Your task to perform on an android device: What's the news in Jamaica? Image 0: 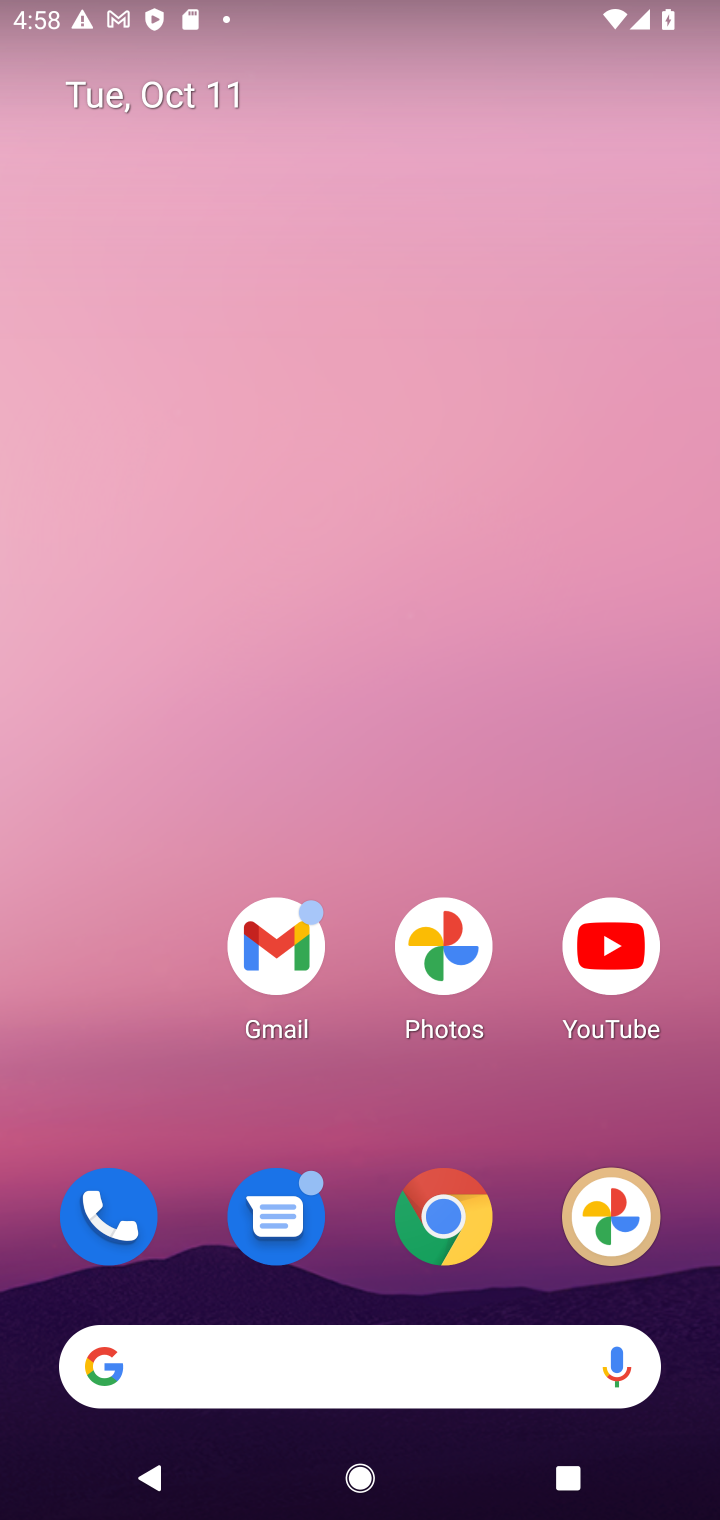
Step 0: click (447, 1225)
Your task to perform on an android device: What's the news in Jamaica? Image 1: 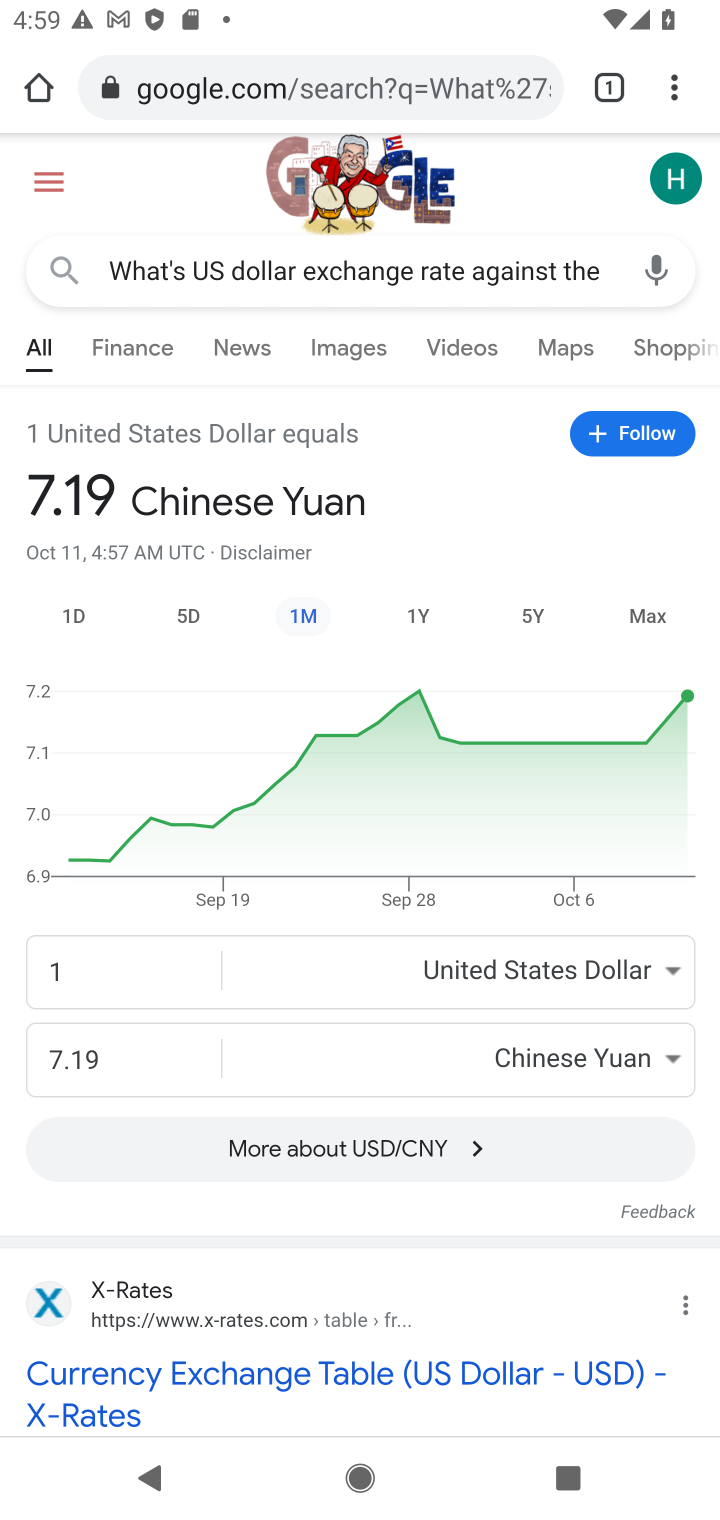
Step 1: click (383, 85)
Your task to perform on an android device: What's the news in Jamaica? Image 2: 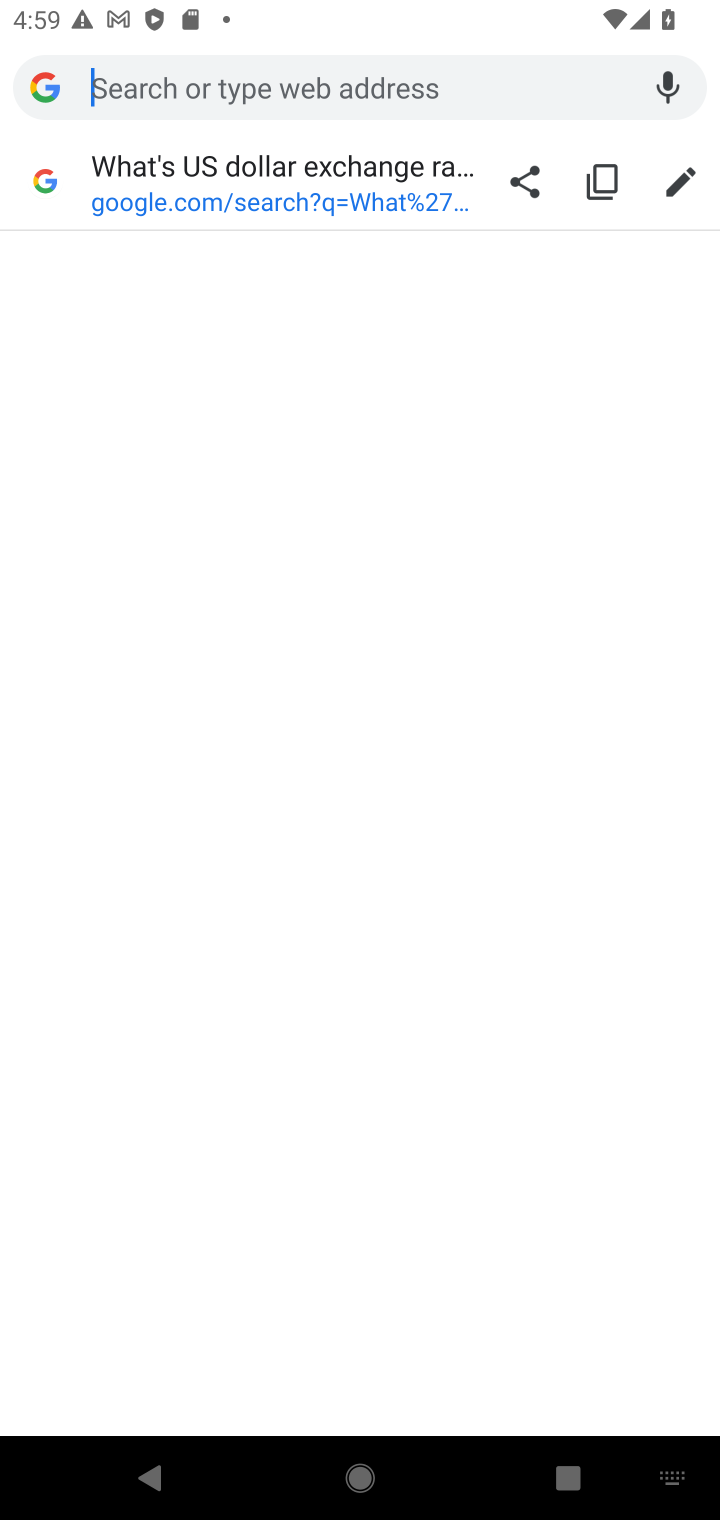
Step 2: type "What's the news in Jamaica?"
Your task to perform on an android device: What's the news in Jamaica? Image 3: 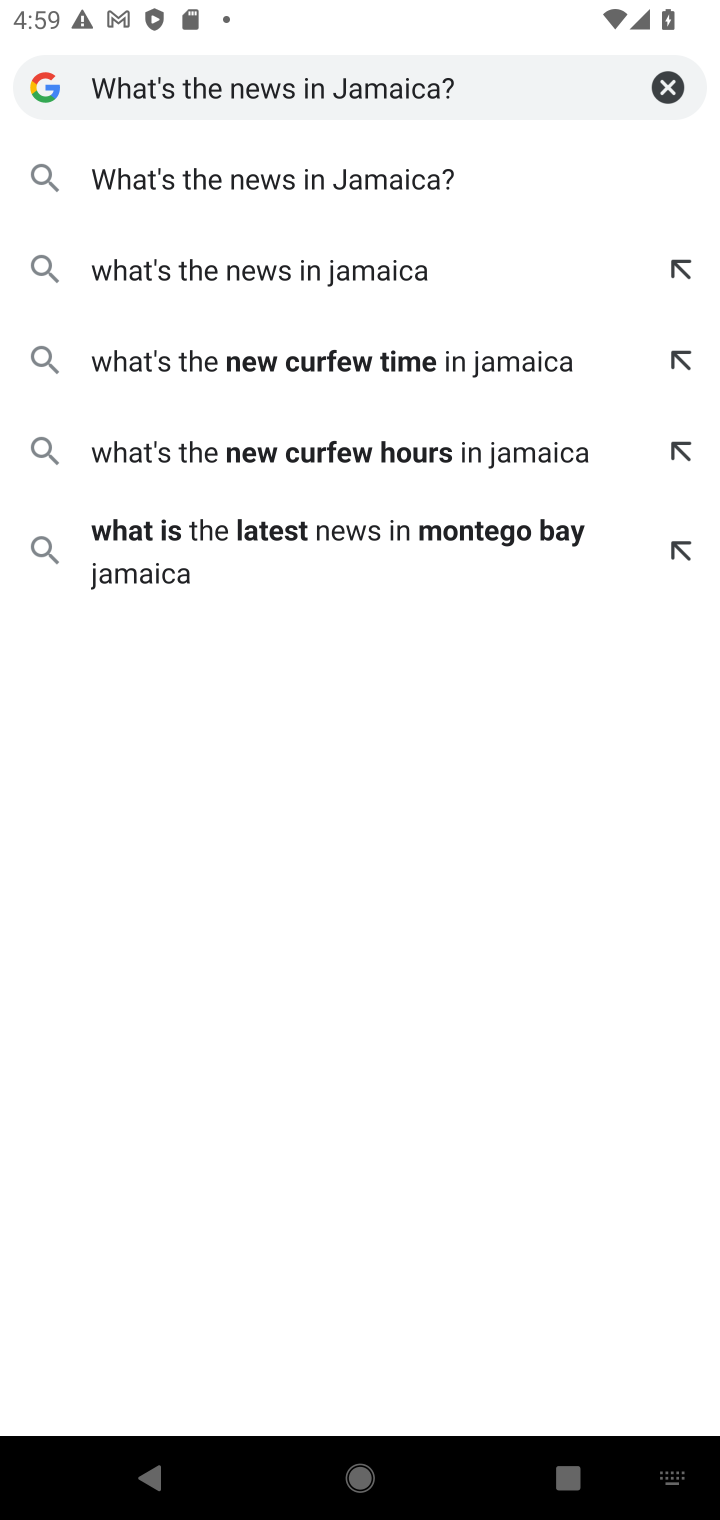
Step 3: click (304, 172)
Your task to perform on an android device: What's the news in Jamaica? Image 4: 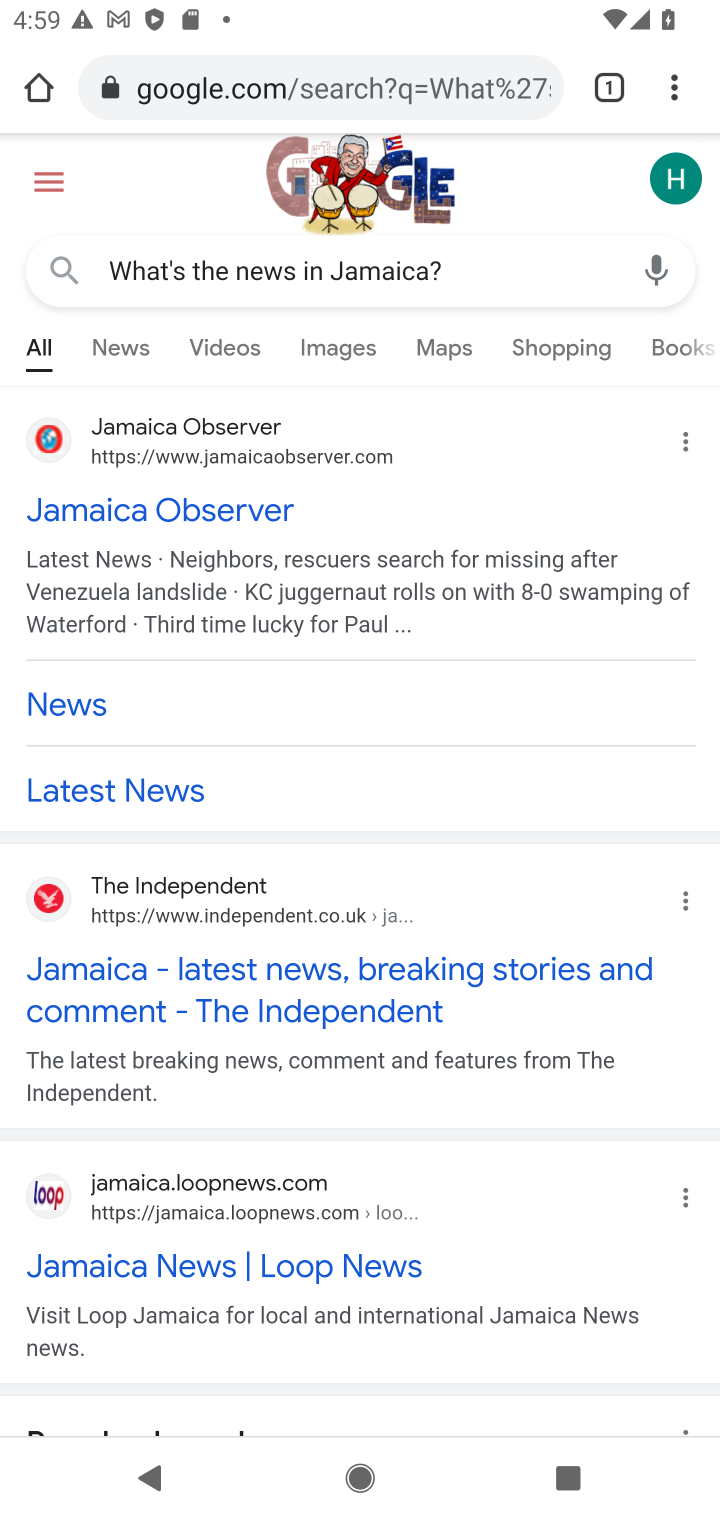
Step 4: click (270, 980)
Your task to perform on an android device: What's the news in Jamaica? Image 5: 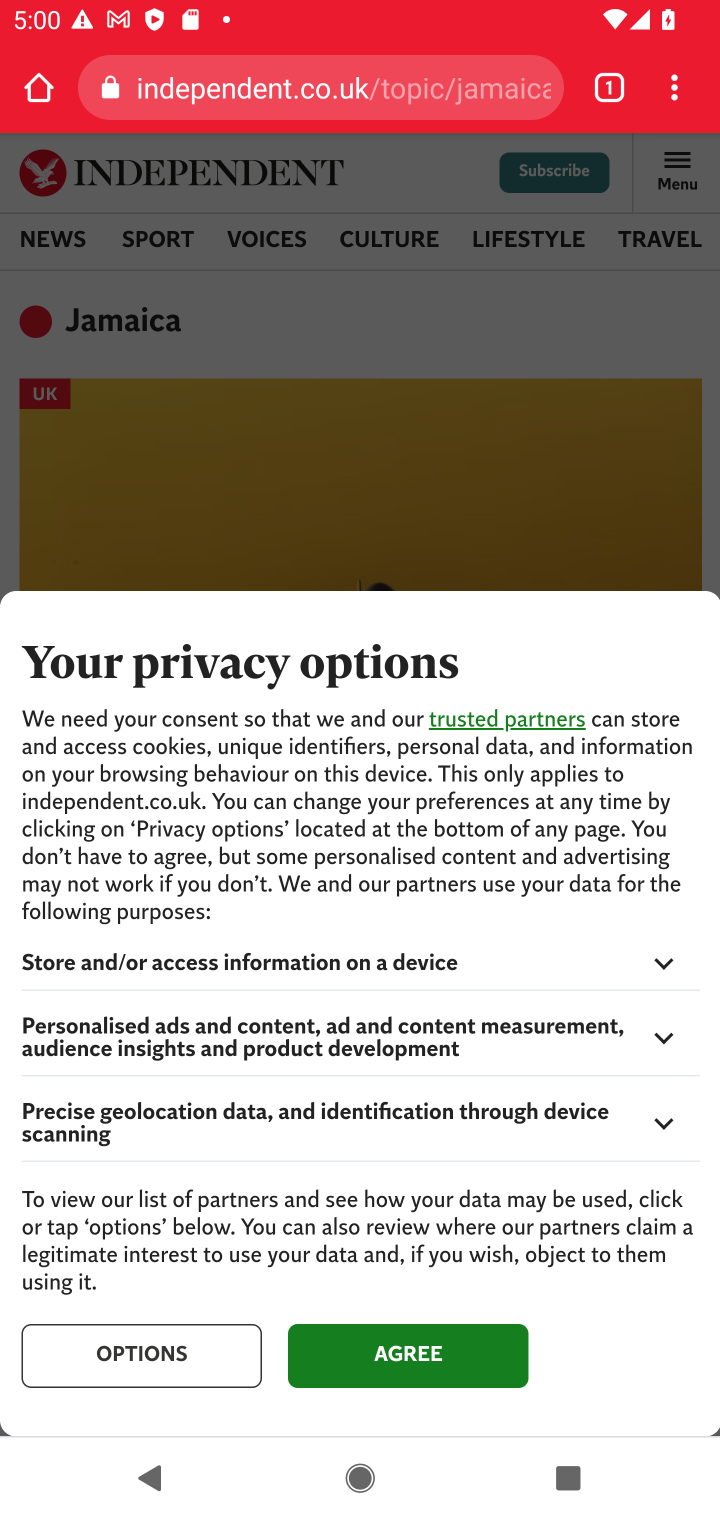
Step 5: click (407, 1361)
Your task to perform on an android device: What's the news in Jamaica? Image 6: 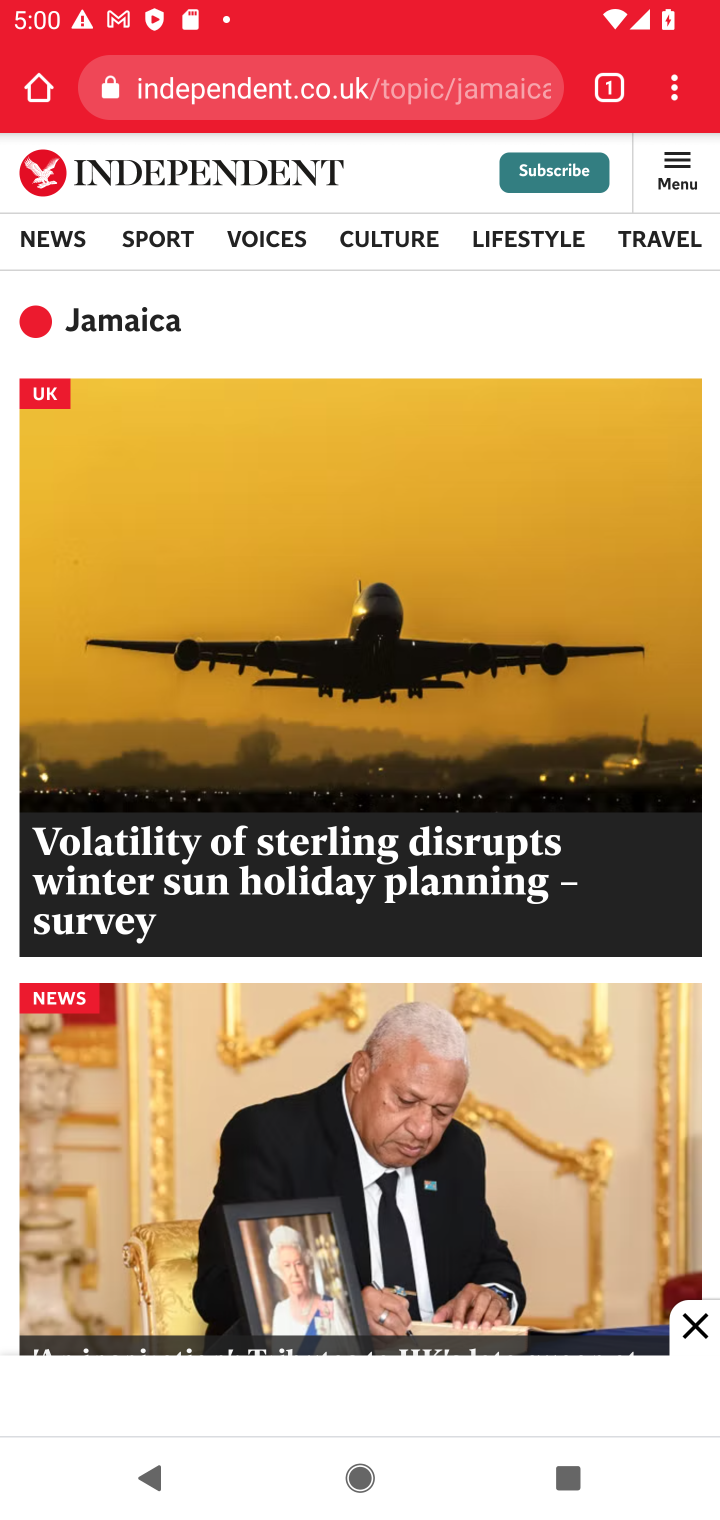
Step 6: task complete